Your task to perform on an android device: set an alarm Image 0: 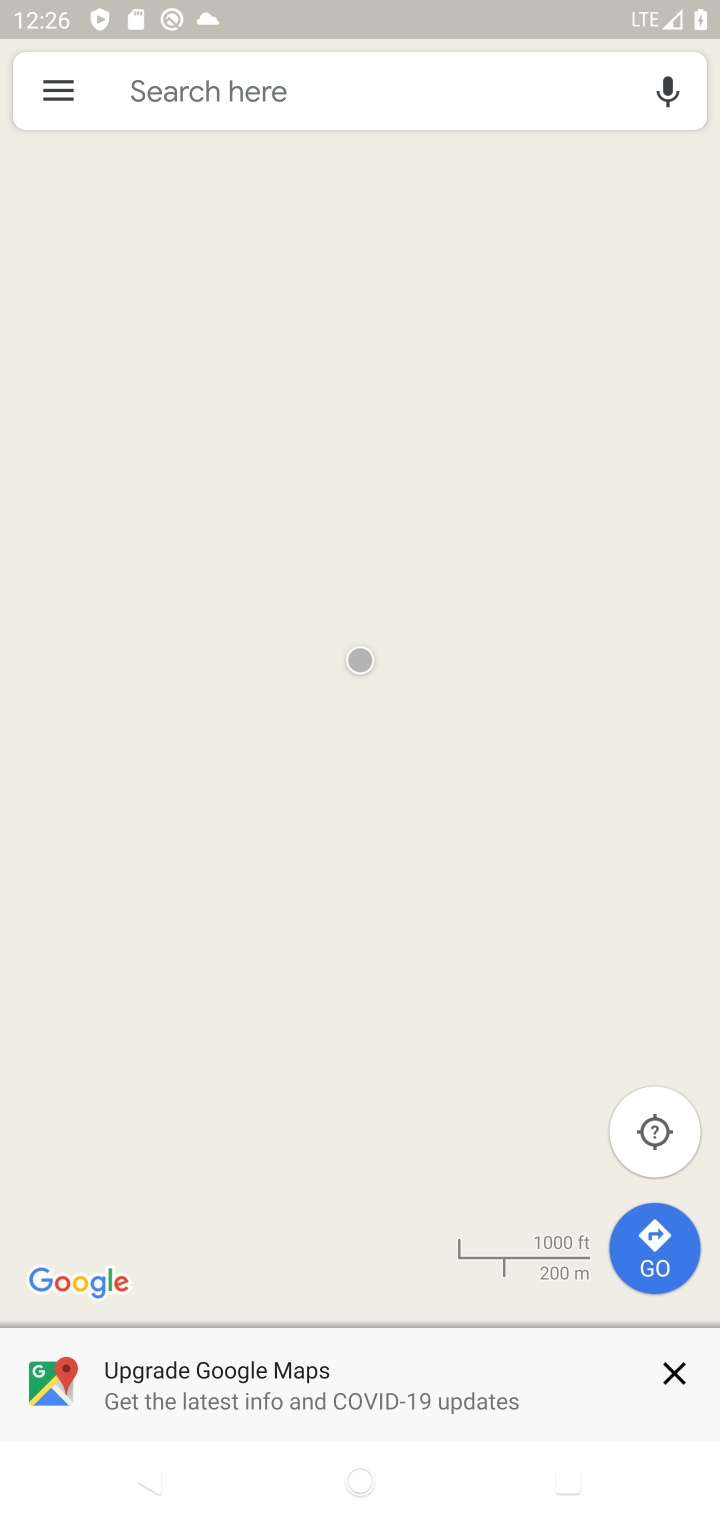
Step 0: press home button
Your task to perform on an android device: set an alarm Image 1: 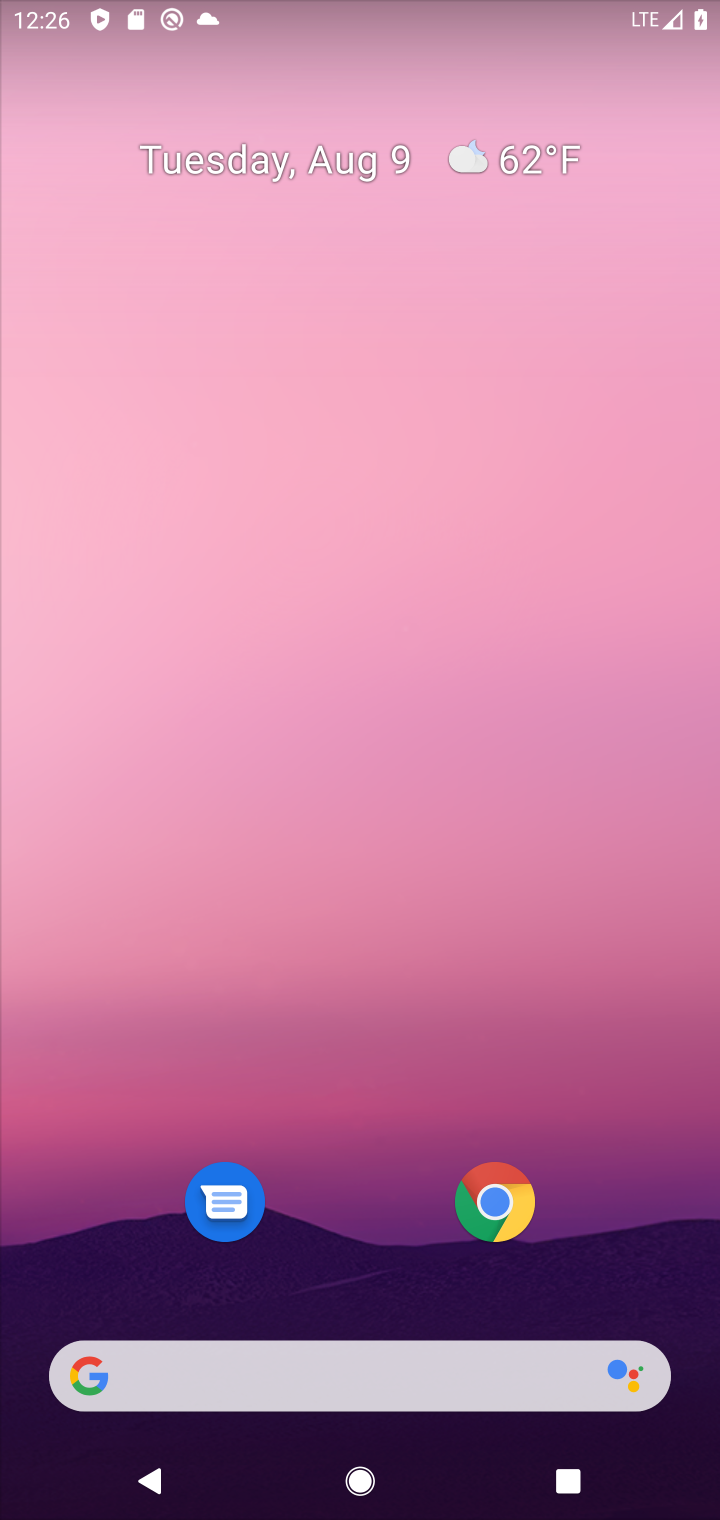
Step 1: drag from (340, 1171) to (316, 0)
Your task to perform on an android device: set an alarm Image 2: 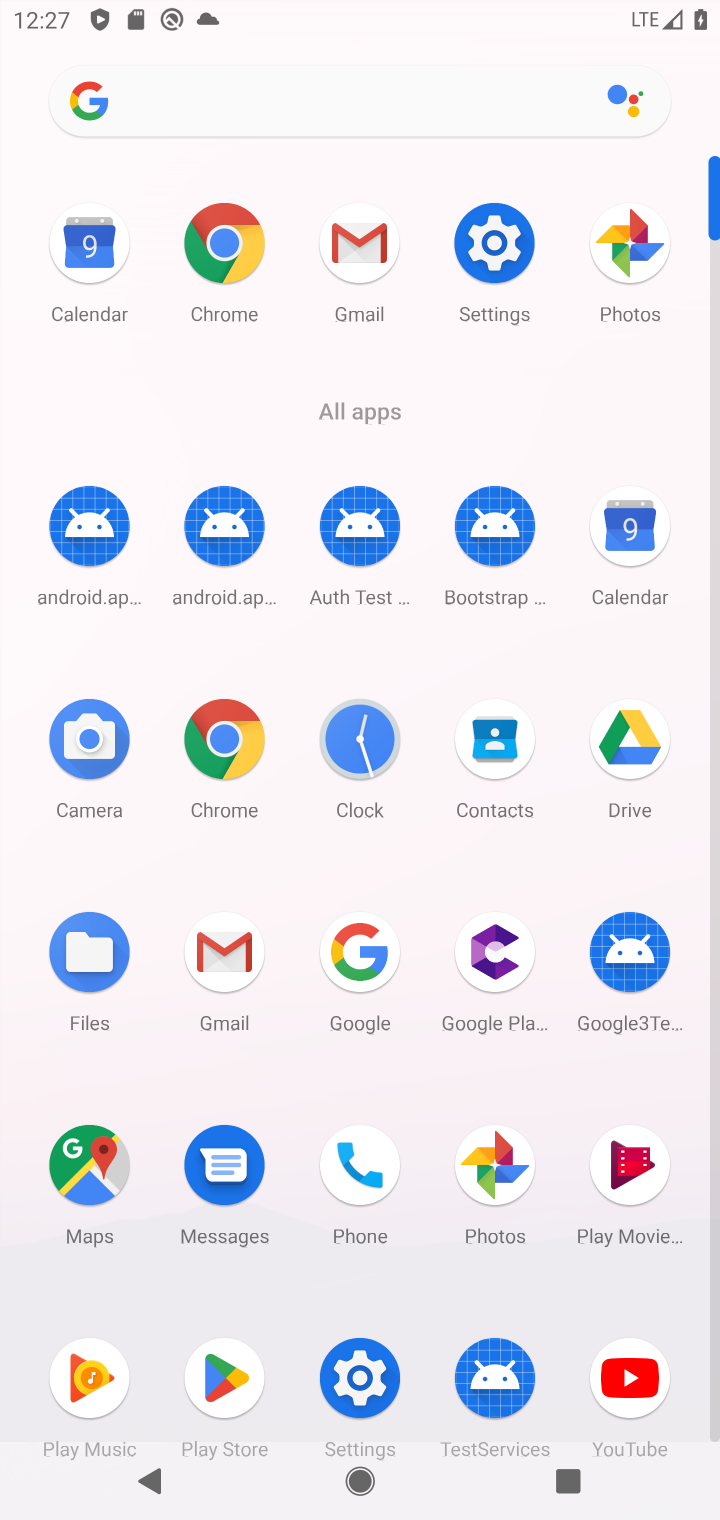
Step 2: click (350, 768)
Your task to perform on an android device: set an alarm Image 3: 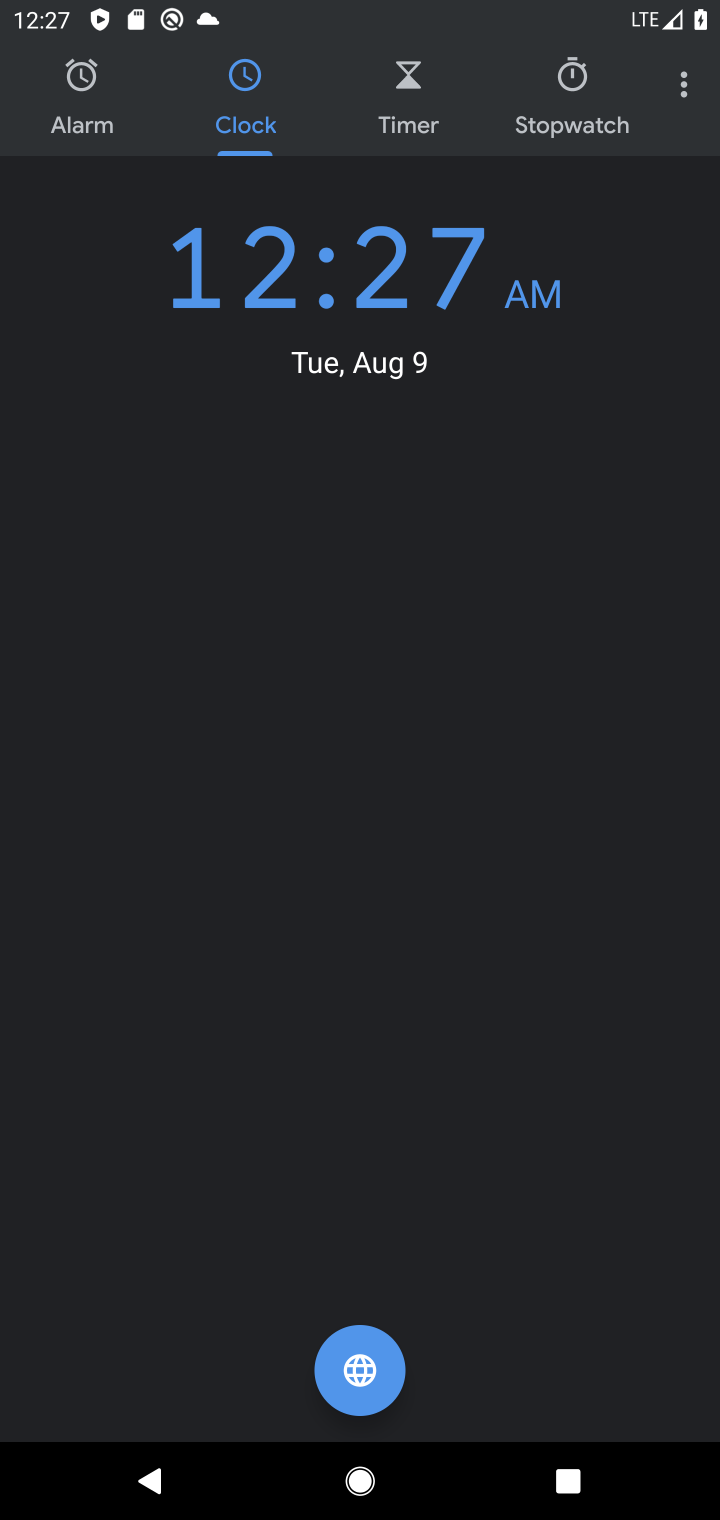
Step 3: click (96, 126)
Your task to perform on an android device: set an alarm Image 4: 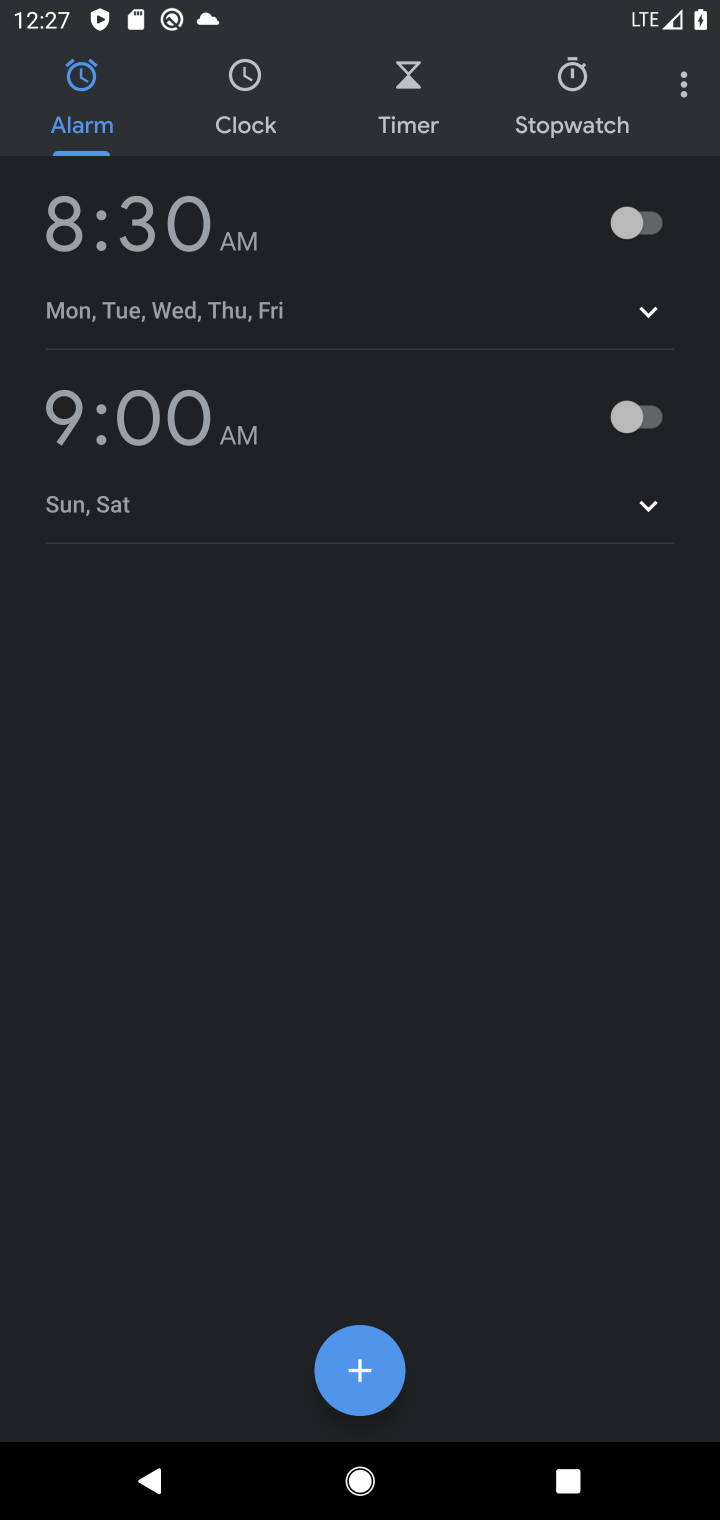
Step 4: click (656, 238)
Your task to perform on an android device: set an alarm Image 5: 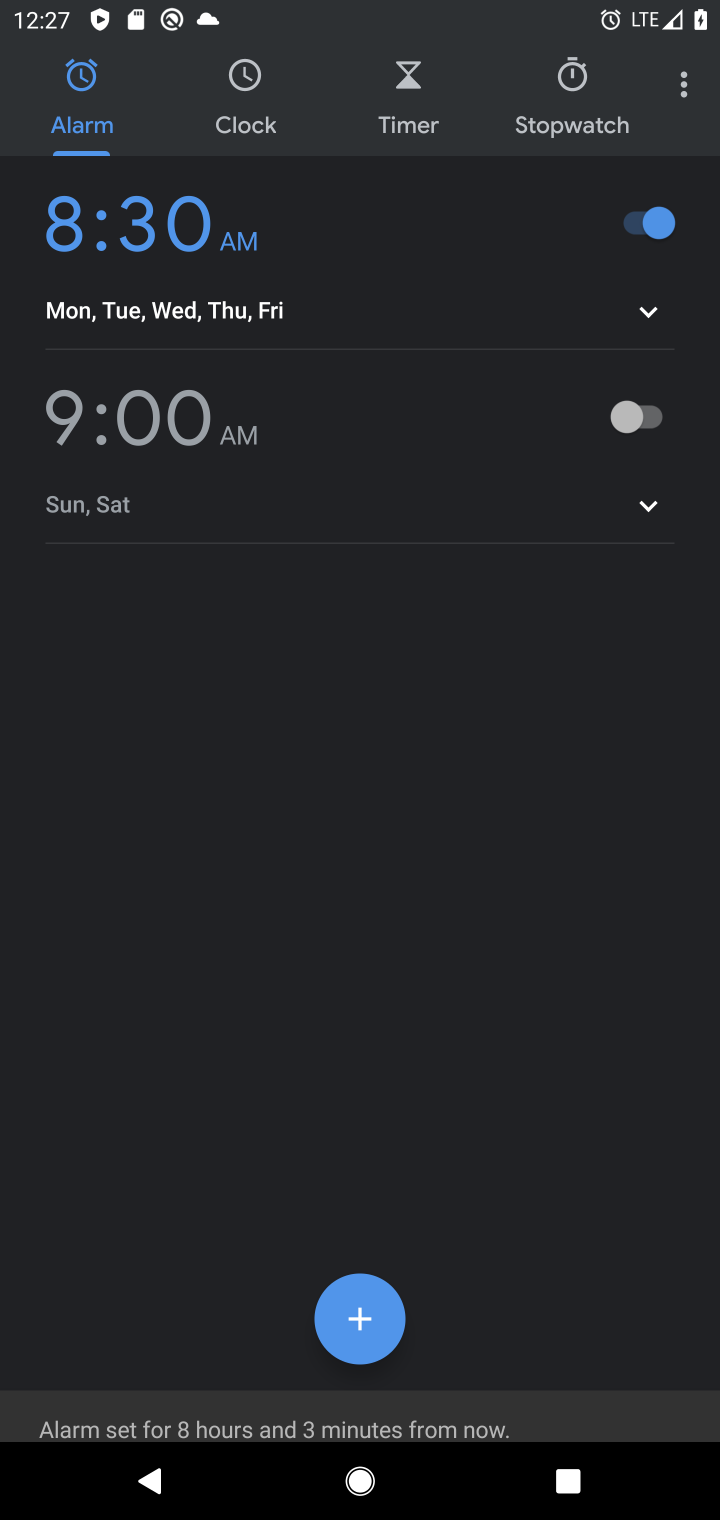
Step 5: task complete